Your task to perform on an android device: set the timer Image 0: 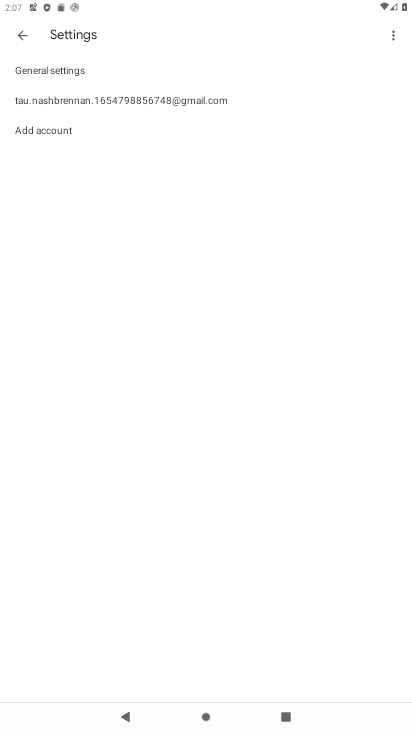
Step 0: press home button
Your task to perform on an android device: set the timer Image 1: 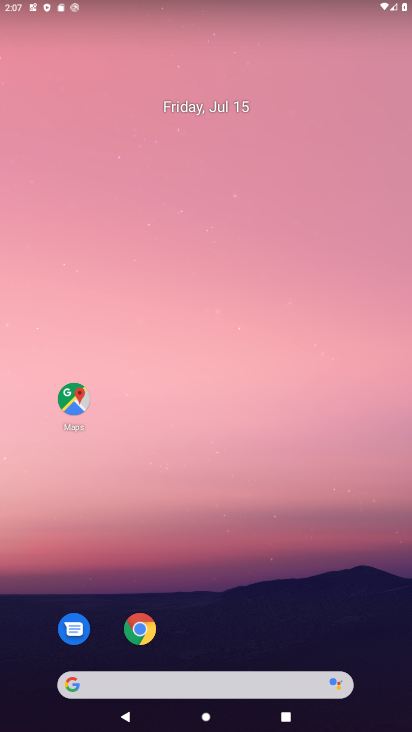
Step 1: drag from (226, 641) to (253, 89)
Your task to perform on an android device: set the timer Image 2: 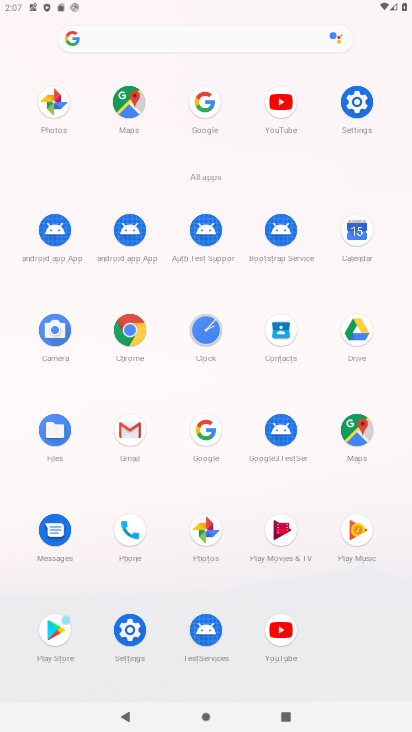
Step 2: click (208, 333)
Your task to perform on an android device: set the timer Image 3: 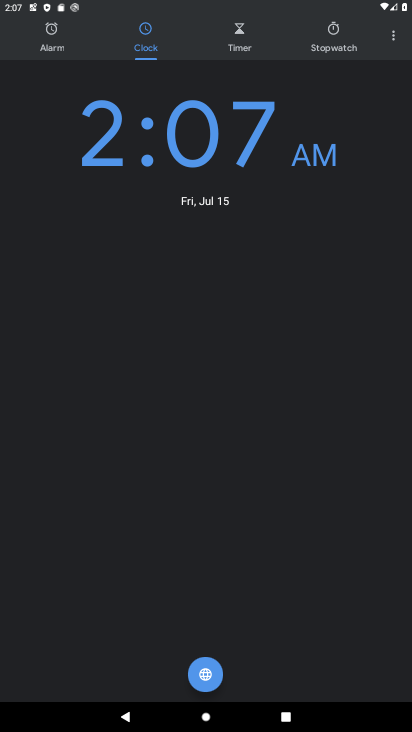
Step 3: click (244, 32)
Your task to perform on an android device: set the timer Image 4: 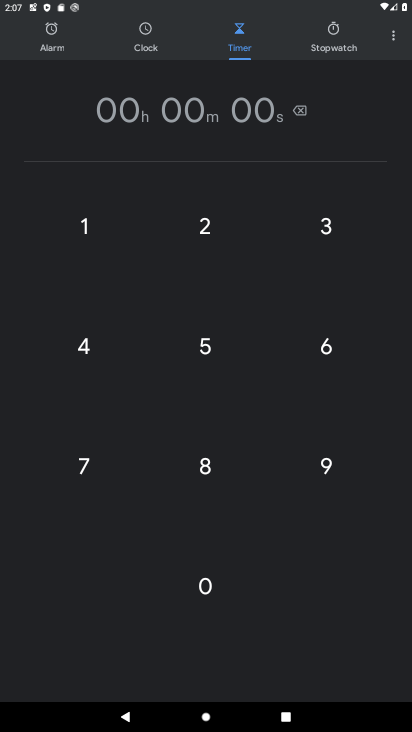
Step 4: click (210, 235)
Your task to perform on an android device: set the timer Image 5: 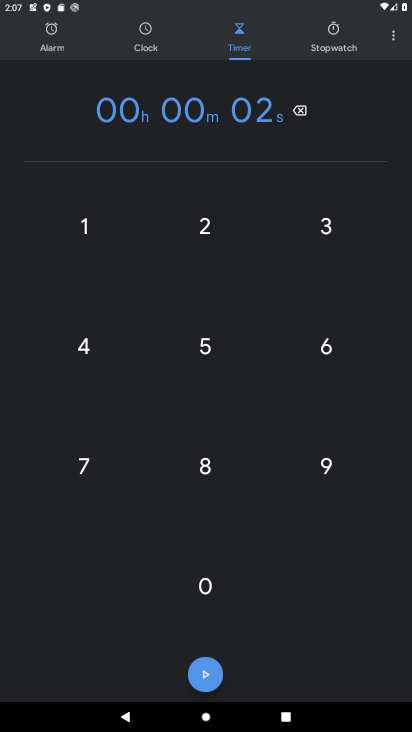
Step 5: click (210, 235)
Your task to perform on an android device: set the timer Image 6: 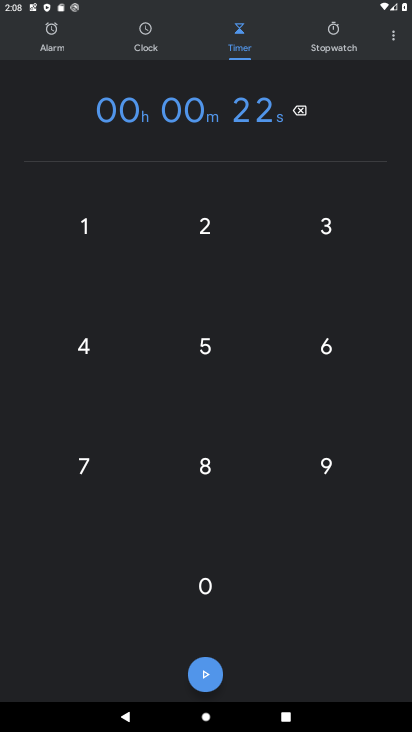
Step 6: task complete